Your task to perform on an android device: Go to Yahoo.com Image 0: 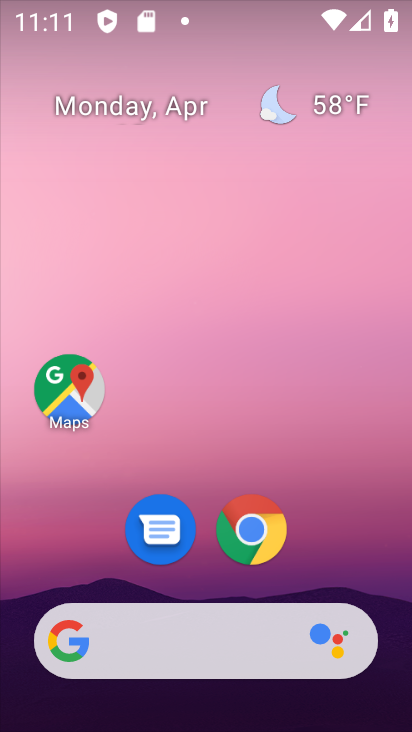
Step 0: click (244, 547)
Your task to perform on an android device: Go to Yahoo.com Image 1: 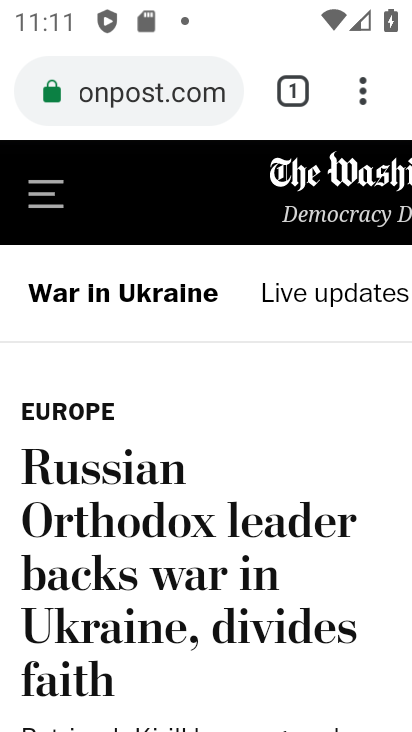
Step 1: press back button
Your task to perform on an android device: Go to Yahoo.com Image 2: 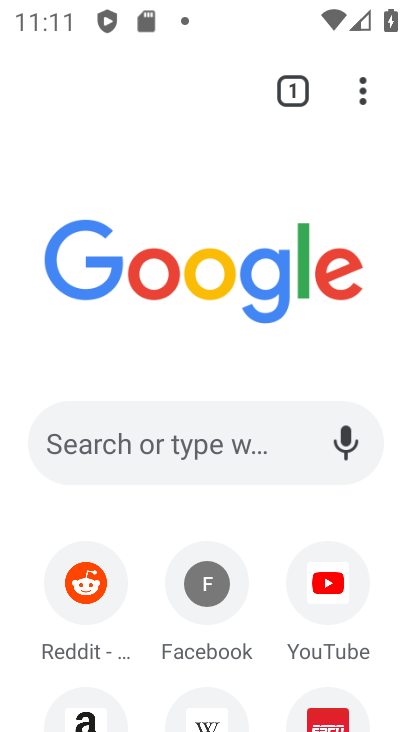
Step 2: drag from (259, 539) to (227, 104)
Your task to perform on an android device: Go to Yahoo.com Image 3: 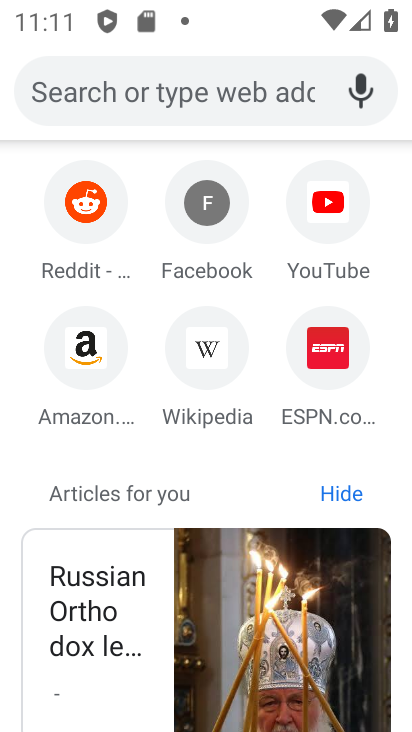
Step 3: click (185, 94)
Your task to perform on an android device: Go to Yahoo.com Image 4: 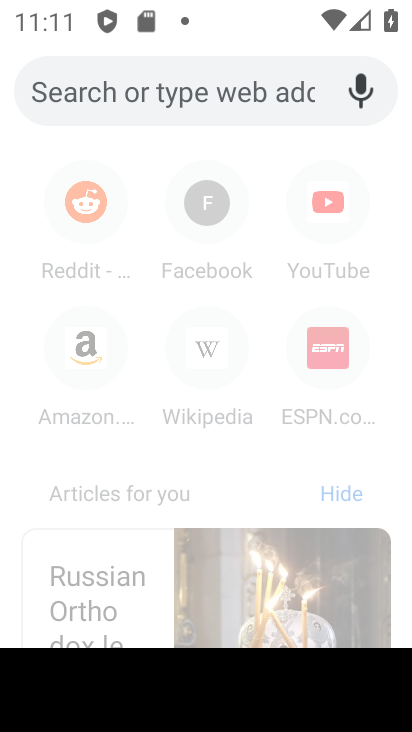
Step 4: type "Yahoo.com"
Your task to perform on an android device: Go to Yahoo.com Image 5: 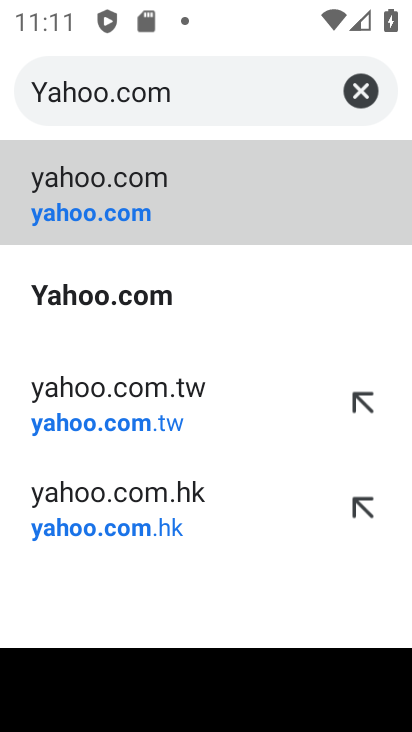
Step 5: click (244, 208)
Your task to perform on an android device: Go to Yahoo.com Image 6: 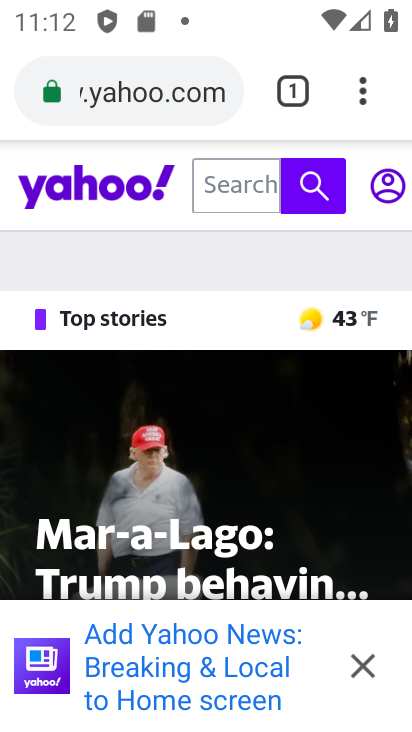
Step 6: task complete